Your task to perform on an android device: Open battery settings Image 0: 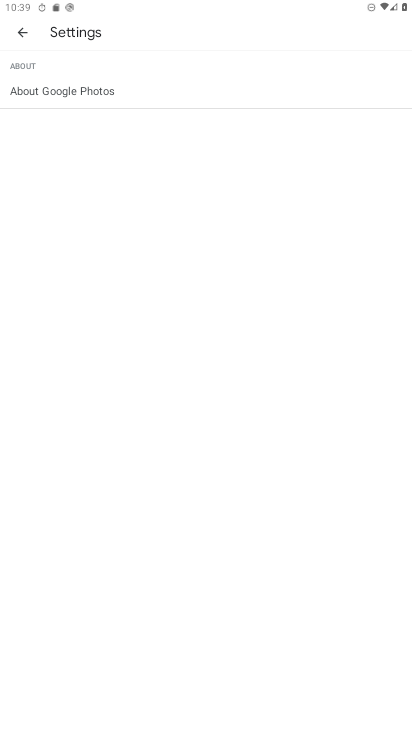
Step 0: press home button
Your task to perform on an android device: Open battery settings Image 1: 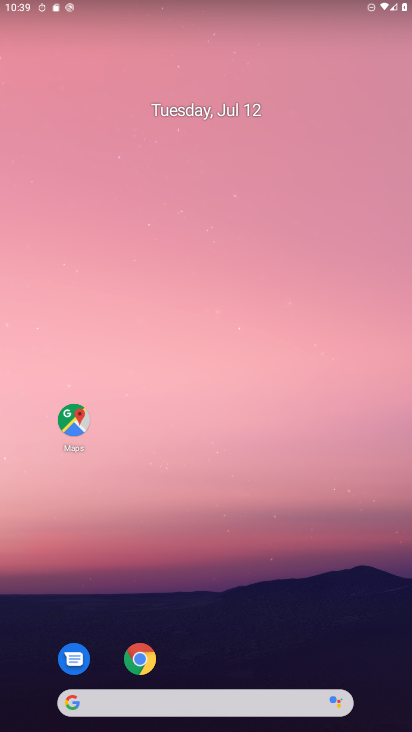
Step 1: drag from (210, 699) to (211, 217)
Your task to perform on an android device: Open battery settings Image 2: 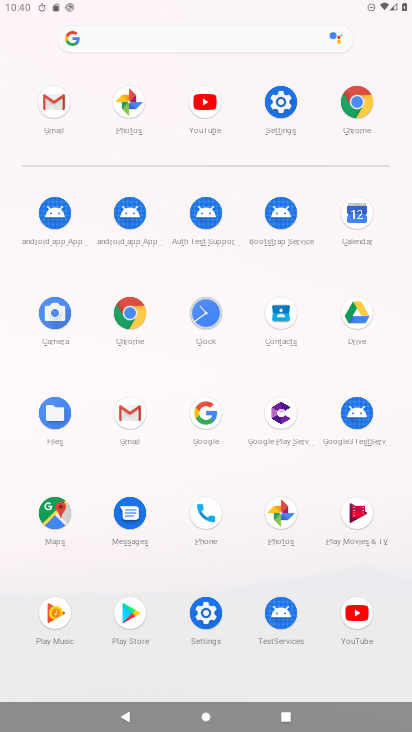
Step 2: click (282, 99)
Your task to perform on an android device: Open battery settings Image 3: 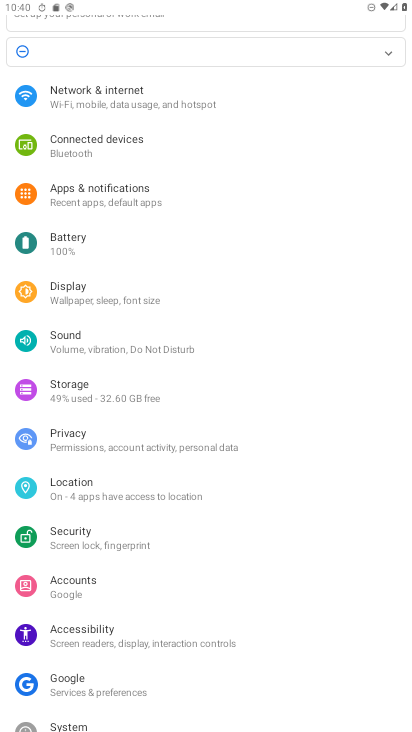
Step 3: click (57, 246)
Your task to perform on an android device: Open battery settings Image 4: 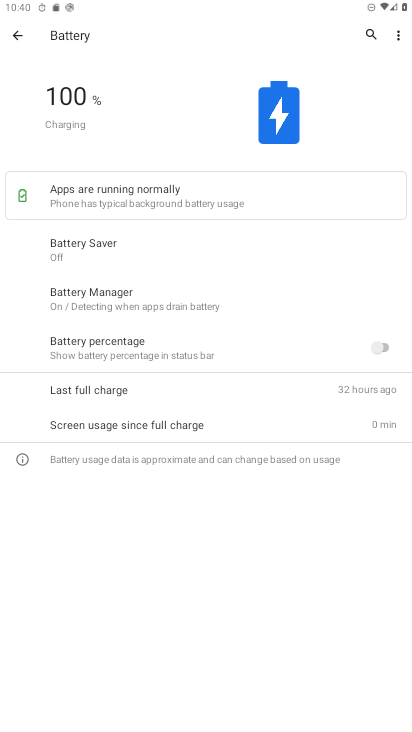
Step 4: task complete